Your task to perform on an android device: turn on location history Image 0: 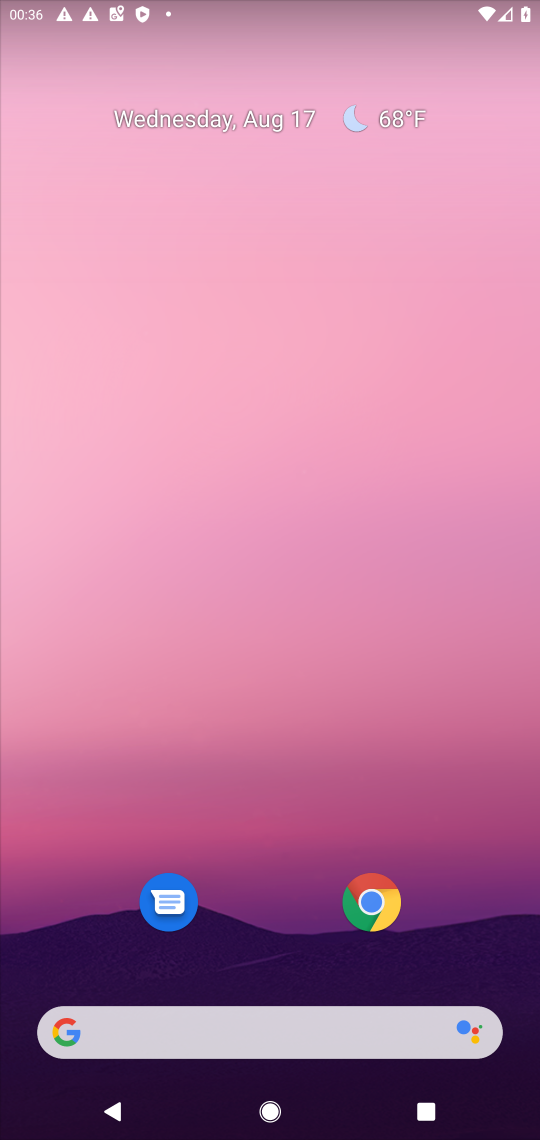
Step 0: drag from (226, 915) to (370, 244)
Your task to perform on an android device: turn on location history Image 1: 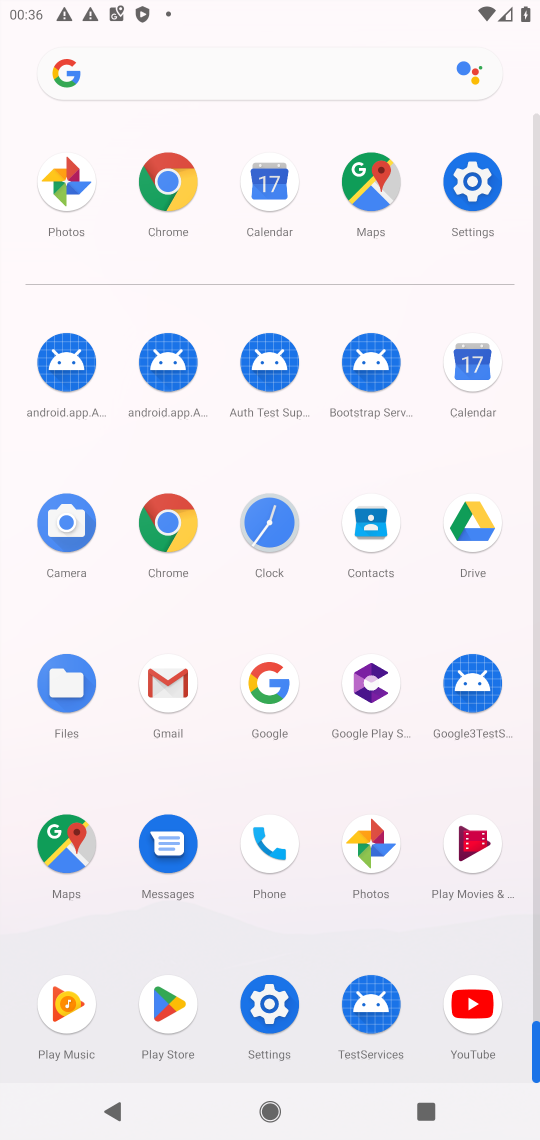
Step 1: click (264, 1017)
Your task to perform on an android device: turn on location history Image 2: 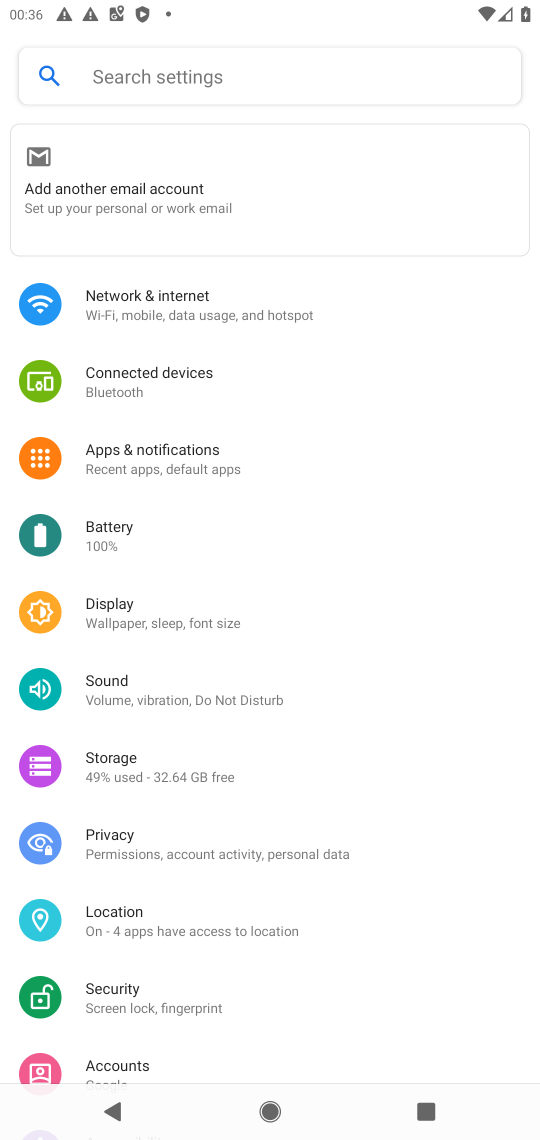
Step 2: click (153, 913)
Your task to perform on an android device: turn on location history Image 3: 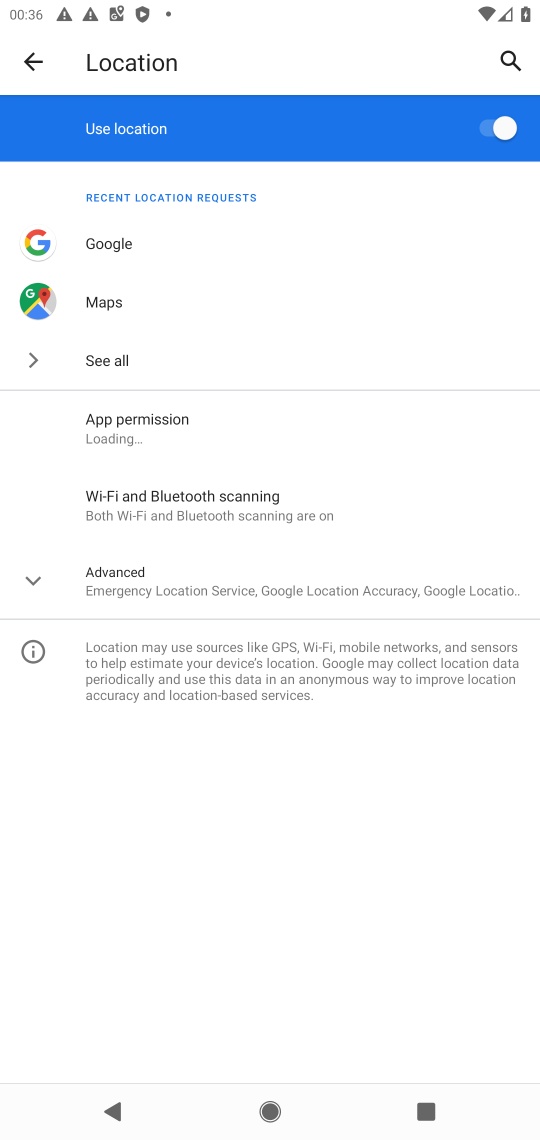
Step 3: click (153, 584)
Your task to perform on an android device: turn on location history Image 4: 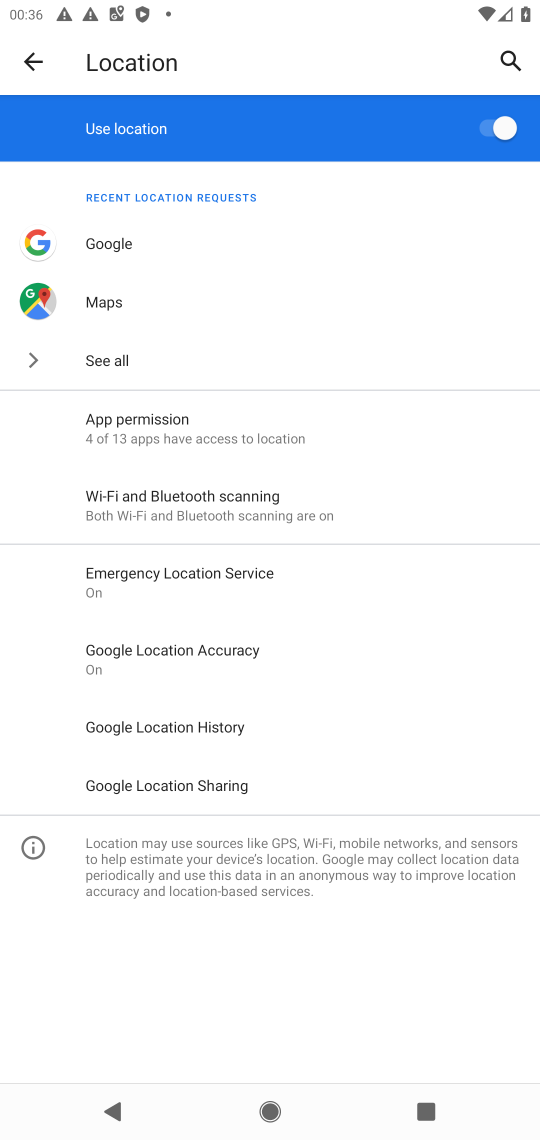
Step 4: click (206, 720)
Your task to perform on an android device: turn on location history Image 5: 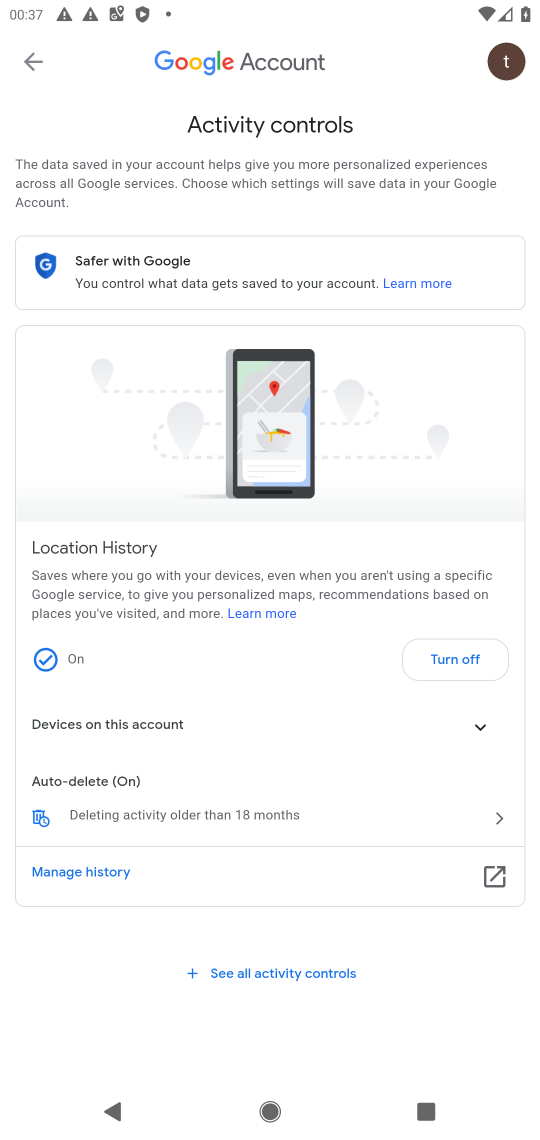
Step 5: task complete